Your task to perform on an android device: Open network settings Image 0: 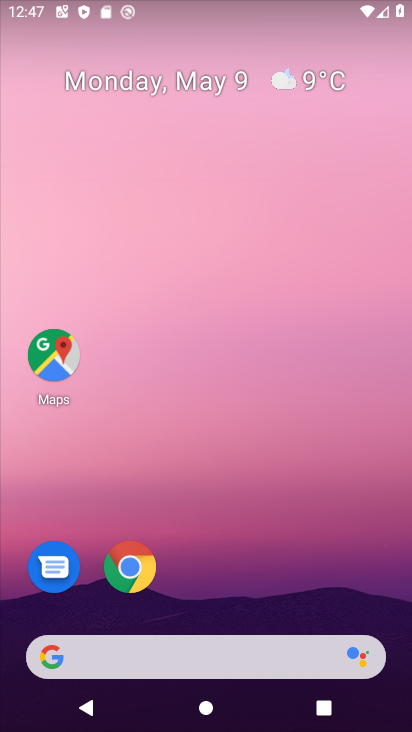
Step 0: drag from (205, 689) to (273, 348)
Your task to perform on an android device: Open network settings Image 1: 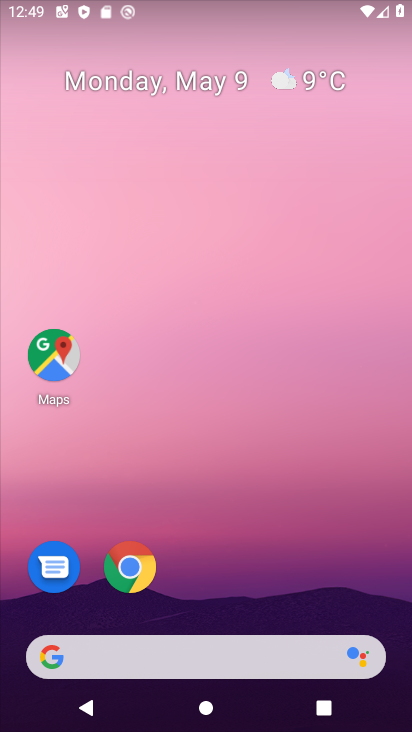
Step 1: drag from (268, 689) to (225, 326)
Your task to perform on an android device: Open network settings Image 2: 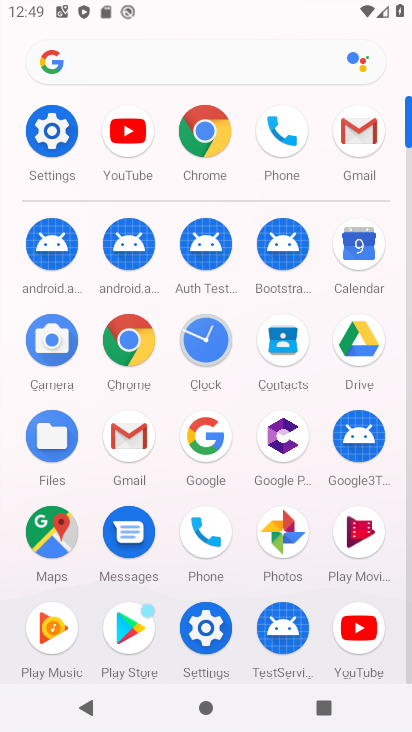
Step 2: click (202, 618)
Your task to perform on an android device: Open network settings Image 3: 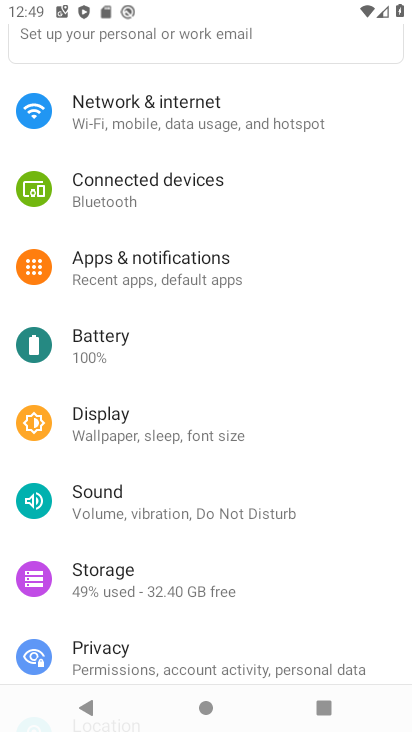
Step 3: click (152, 140)
Your task to perform on an android device: Open network settings Image 4: 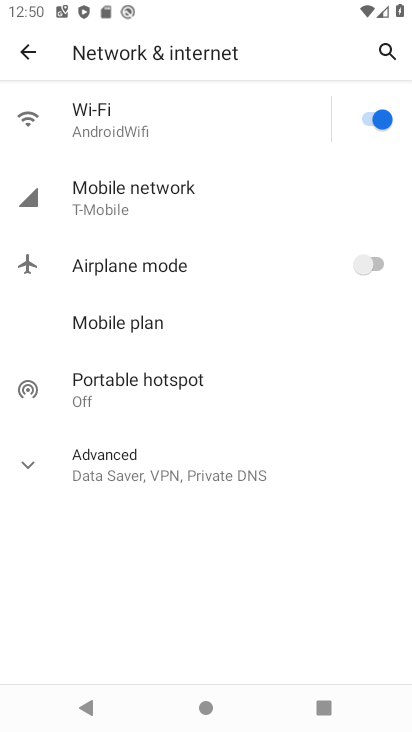
Step 4: task complete